Your task to perform on an android device: Open the stopwatch Image 0: 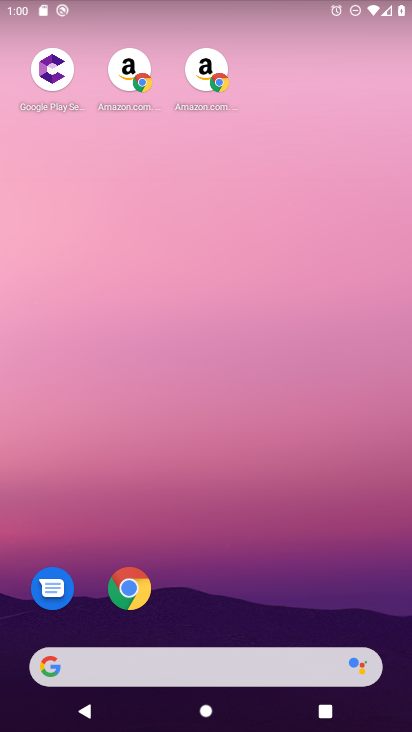
Step 0: drag from (250, 679) to (153, 102)
Your task to perform on an android device: Open the stopwatch Image 1: 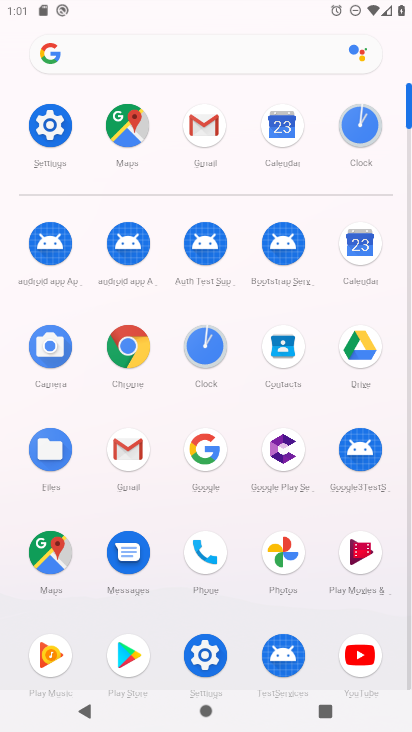
Step 1: click (194, 360)
Your task to perform on an android device: Open the stopwatch Image 2: 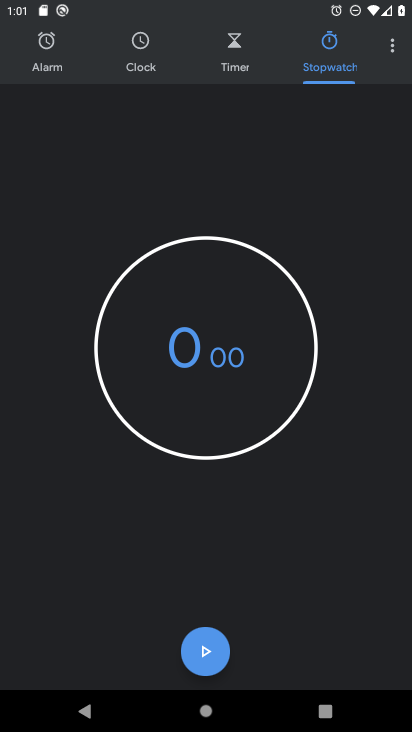
Step 2: click (326, 72)
Your task to perform on an android device: Open the stopwatch Image 3: 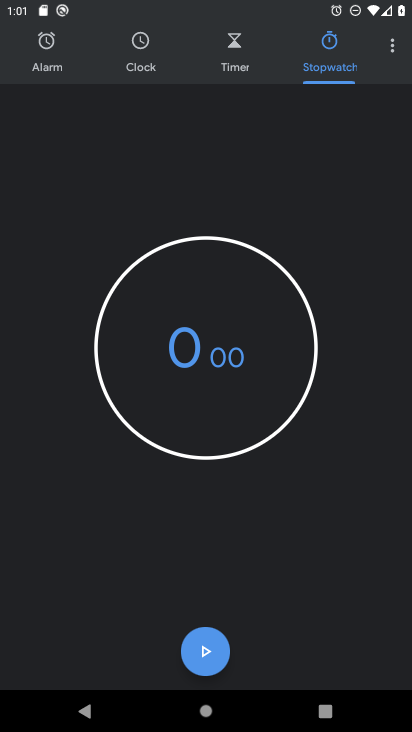
Step 3: click (215, 647)
Your task to perform on an android device: Open the stopwatch Image 4: 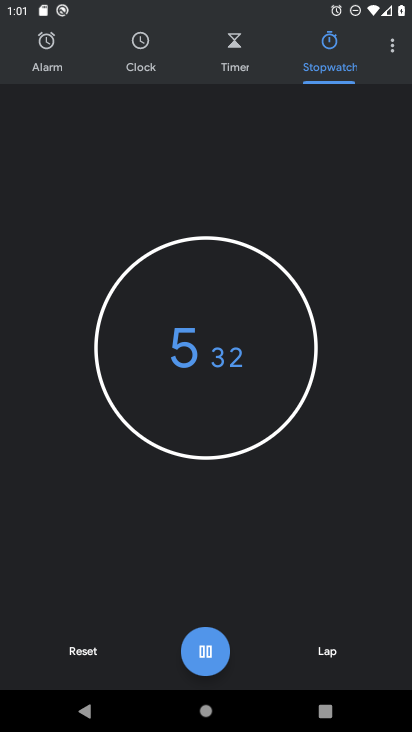
Step 4: click (212, 660)
Your task to perform on an android device: Open the stopwatch Image 5: 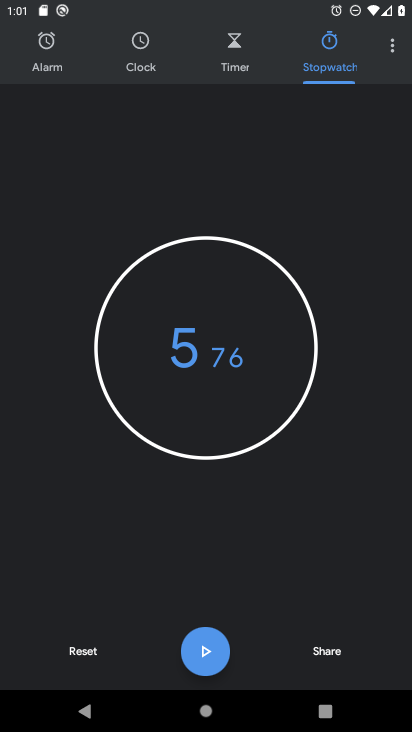
Step 5: task complete